Your task to perform on an android device: Open Reddit.com Image 0: 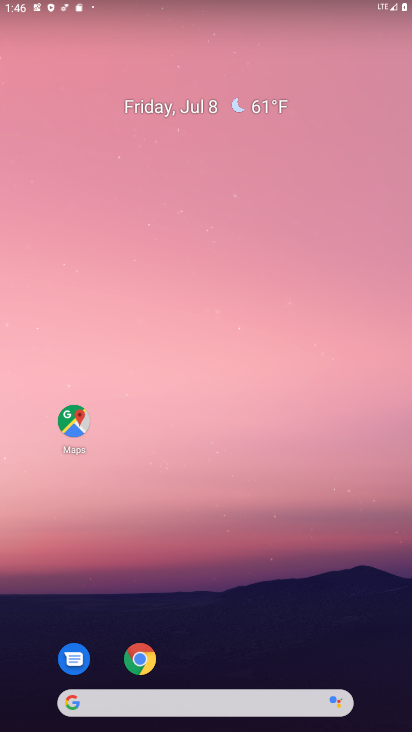
Step 0: drag from (226, 679) to (184, 116)
Your task to perform on an android device: Open Reddit.com Image 1: 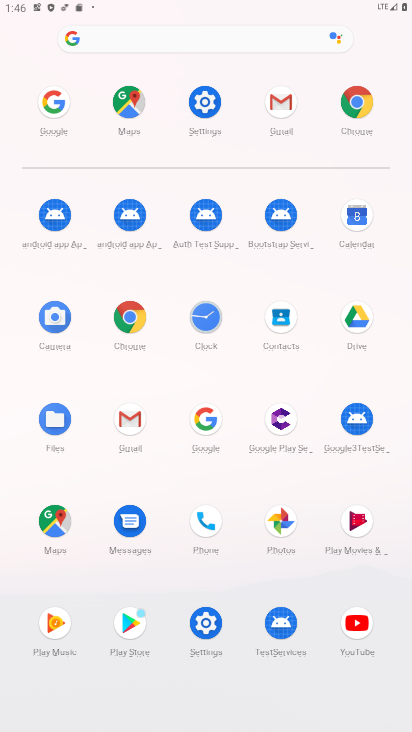
Step 1: click (139, 314)
Your task to perform on an android device: Open Reddit.com Image 2: 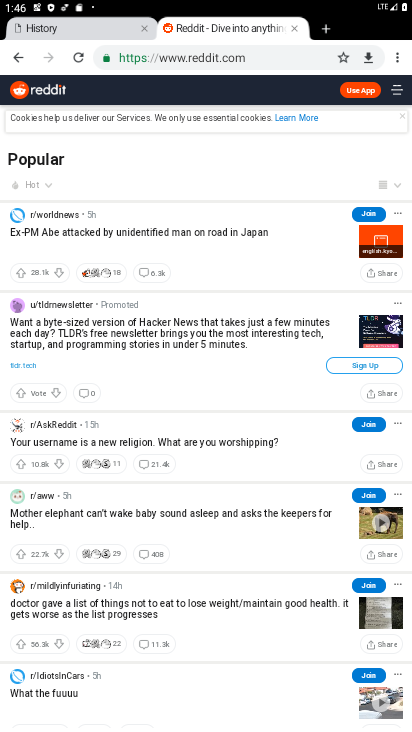
Step 2: drag from (125, 155) to (122, 439)
Your task to perform on an android device: Open Reddit.com Image 3: 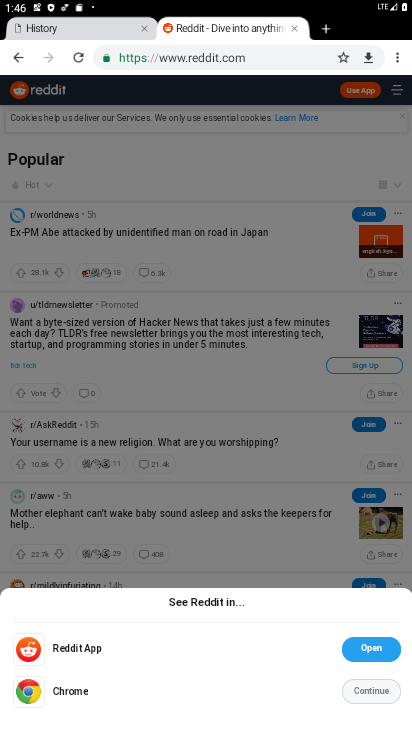
Step 3: click (367, 685)
Your task to perform on an android device: Open Reddit.com Image 4: 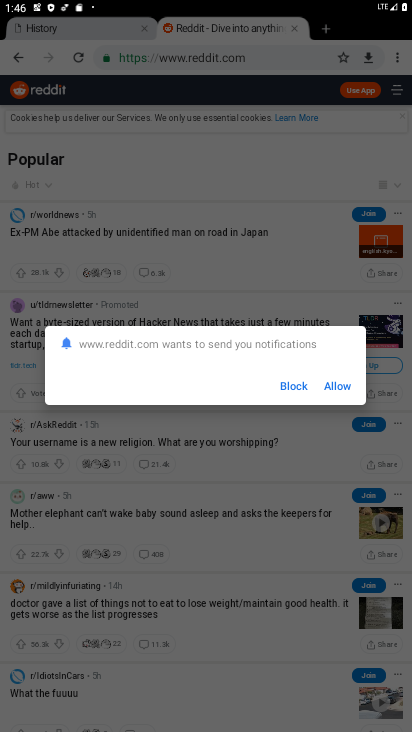
Step 4: click (329, 387)
Your task to perform on an android device: Open Reddit.com Image 5: 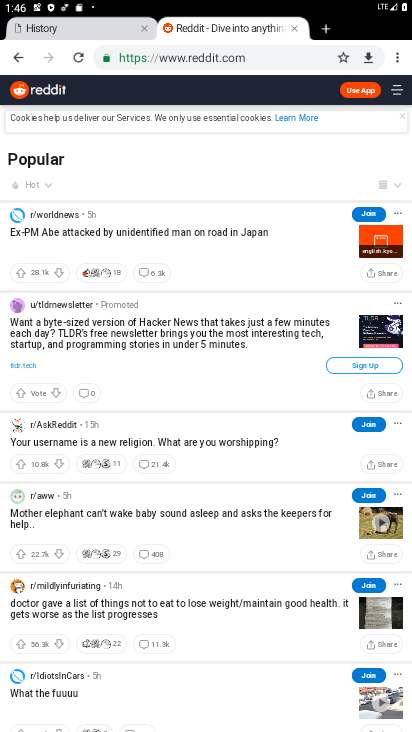
Step 5: task complete